Your task to perform on an android device: Open Android settings Image 0: 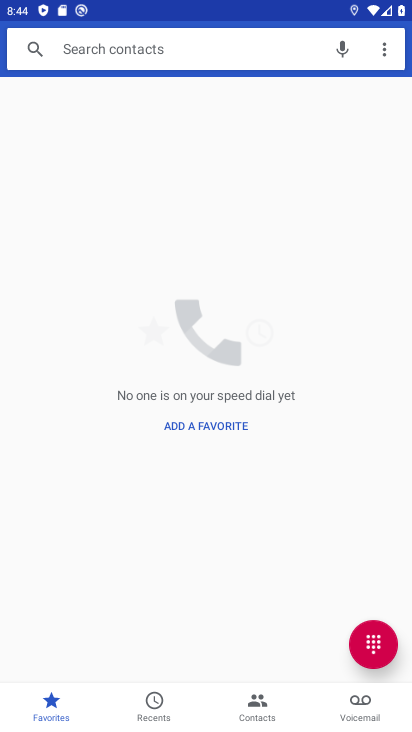
Step 0: press home button
Your task to perform on an android device: Open Android settings Image 1: 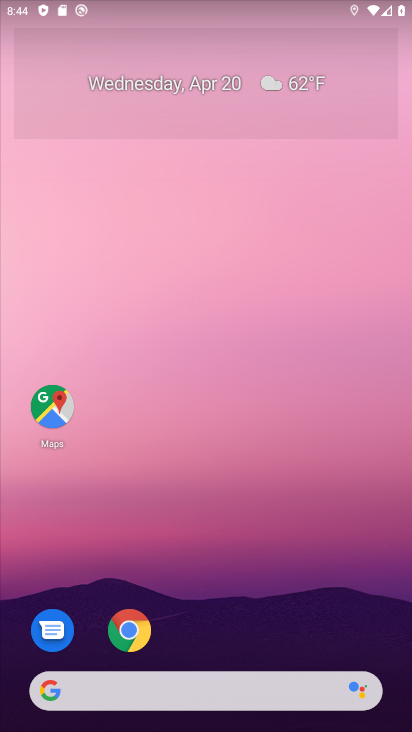
Step 1: drag from (186, 645) to (263, 125)
Your task to perform on an android device: Open Android settings Image 2: 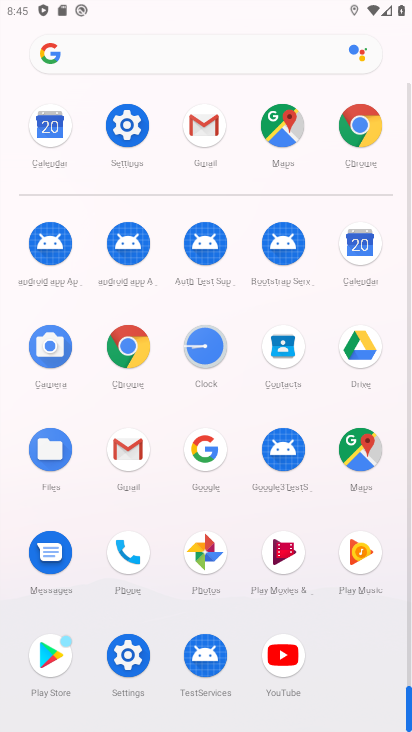
Step 2: click (143, 136)
Your task to perform on an android device: Open Android settings Image 3: 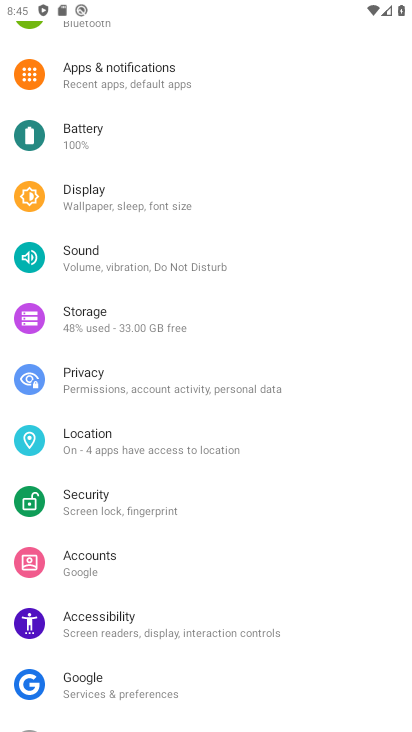
Step 3: drag from (112, 662) to (252, 2)
Your task to perform on an android device: Open Android settings Image 4: 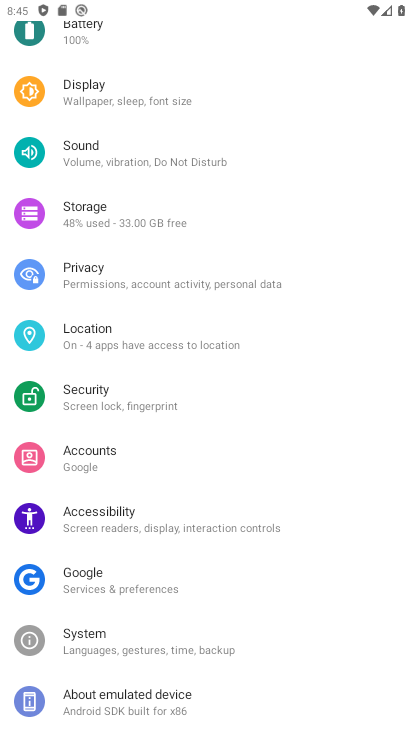
Step 4: click (122, 703)
Your task to perform on an android device: Open Android settings Image 5: 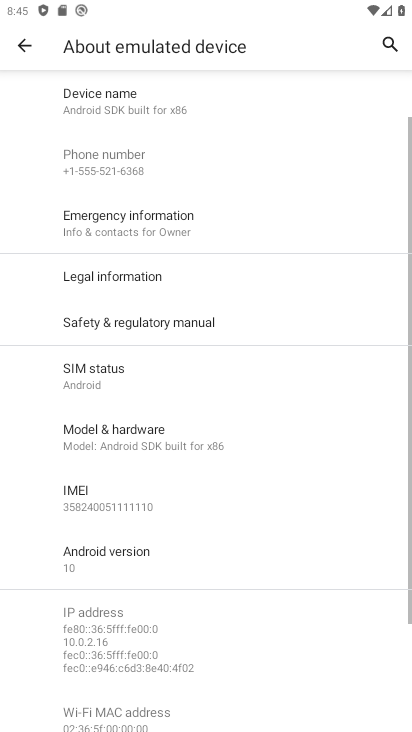
Step 5: drag from (155, 504) to (195, 167)
Your task to perform on an android device: Open Android settings Image 6: 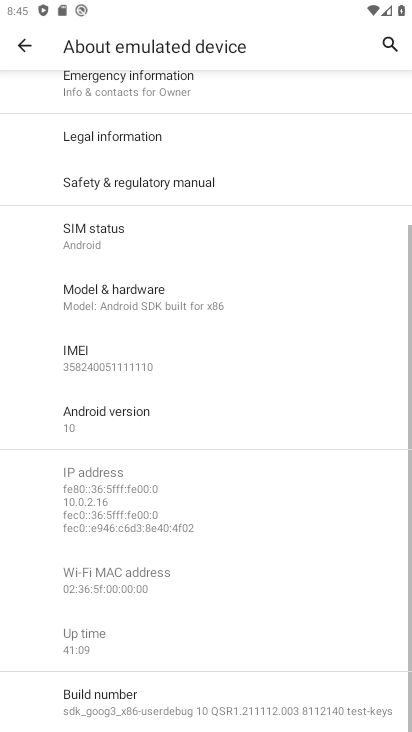
Step 6: click (103, 408)
Your task to perform on an android device: Open Android settings Image 7: 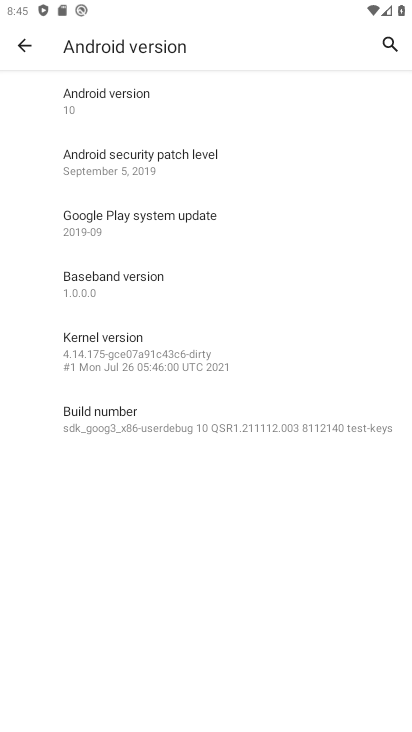
Step 7: task complete